Your task to perform on an android device: turn off smart reply in the gmail app Image 0: 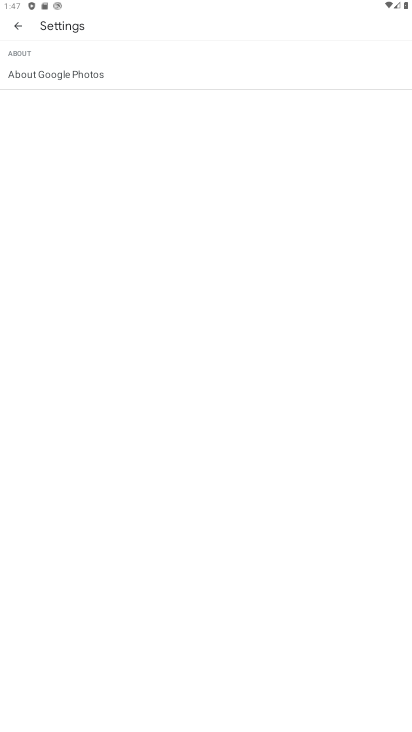
Step 0: press home button
Your task to perform on an android device: turn off smart reply in the gmail app Image 1: 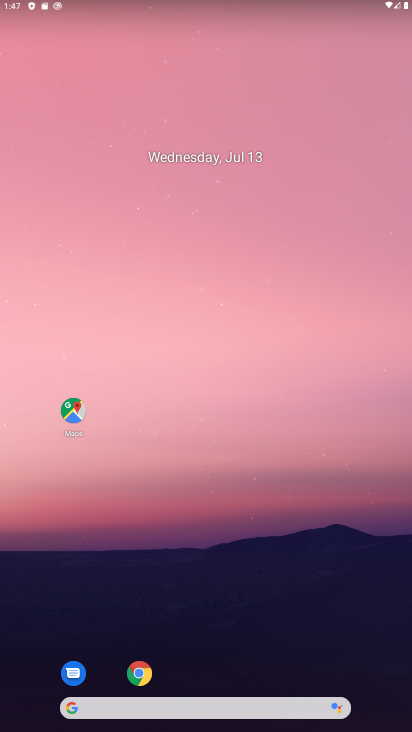
Step 1: drag from (254, 553) to (191, 241)
Your task to perform on an android device: turn off smart reply in the gmail app Image 2: 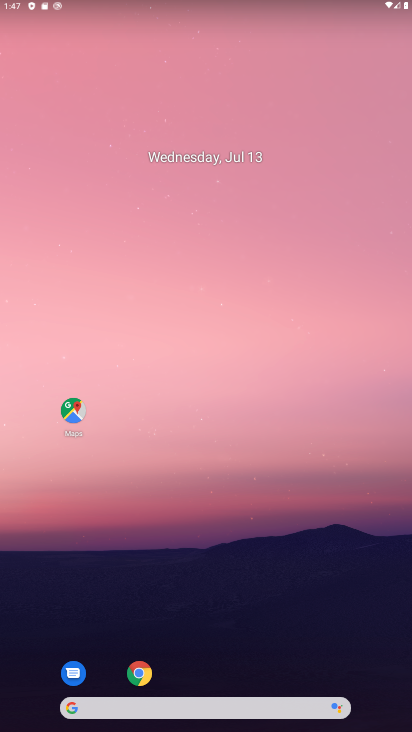
Step 2: drag from (226, 558) to (210, 2)
Your task to perform on an android device: turn off smart reply in the gmail app Image 3: 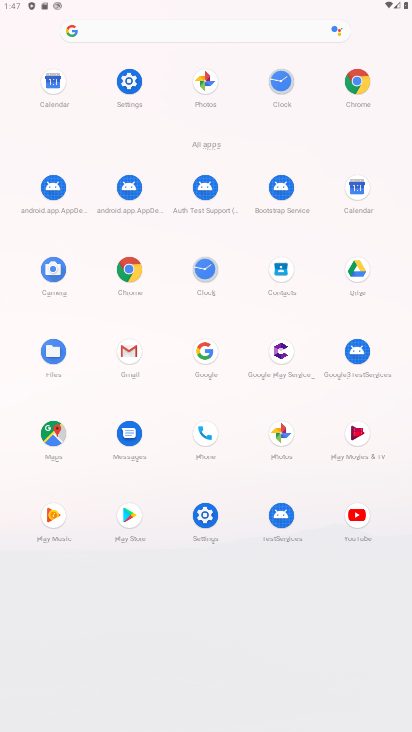
Step 3: click (131, 352)
Your task to perform on an android device: turn off smart reply in the gmail app Image 4: 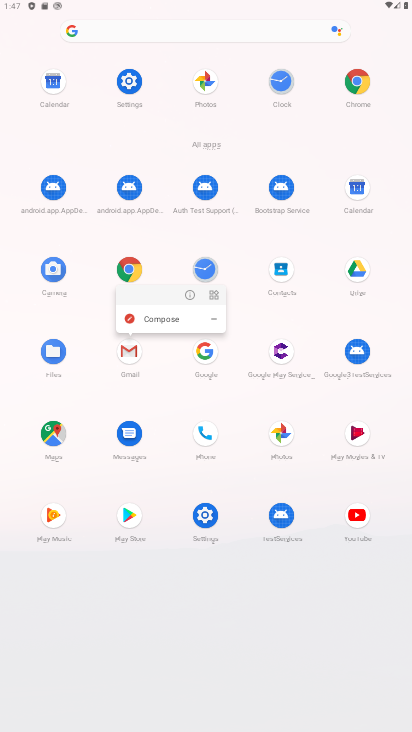
Step 4: click (131, 352)
Your task to perform on an android device: turn off smart reply in the gmail app Image 5: 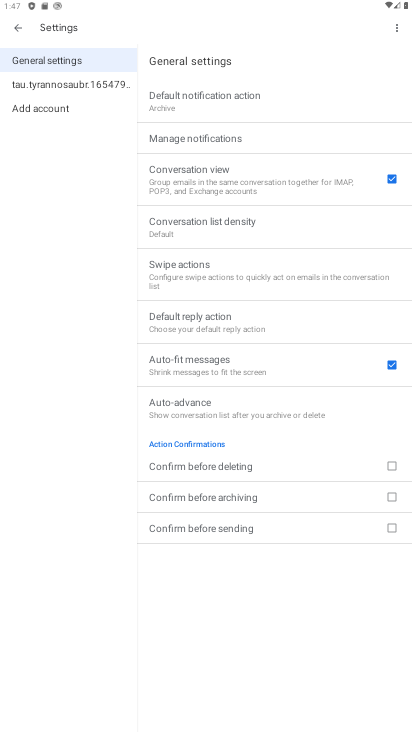
Step 5: click (46, 81)
Your task to perform on an android device: turn off smart reply in the gmail app Image 6: 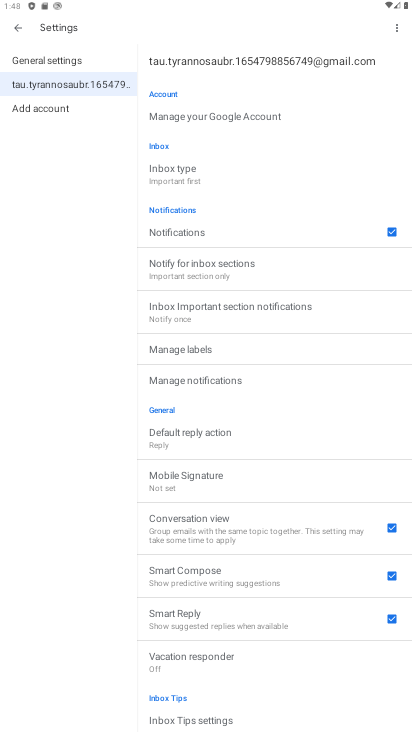
Step 6: click (397, 619)
Your task to perform on an android device: turn off smart reply in the gmail app Image 7: 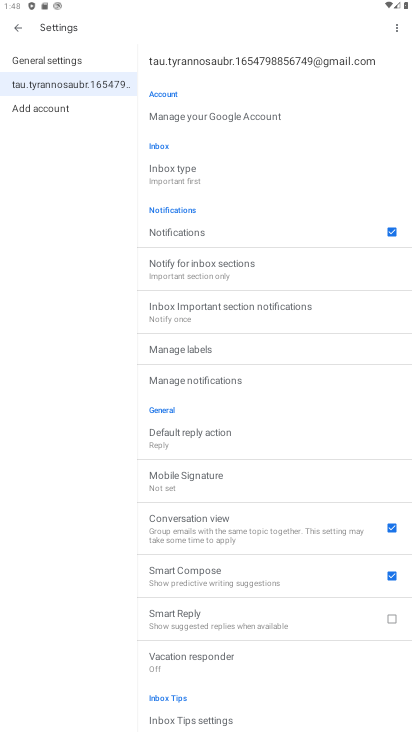
Step 7: task complete